Your task to perform on an android device: Open display settings Image 0: 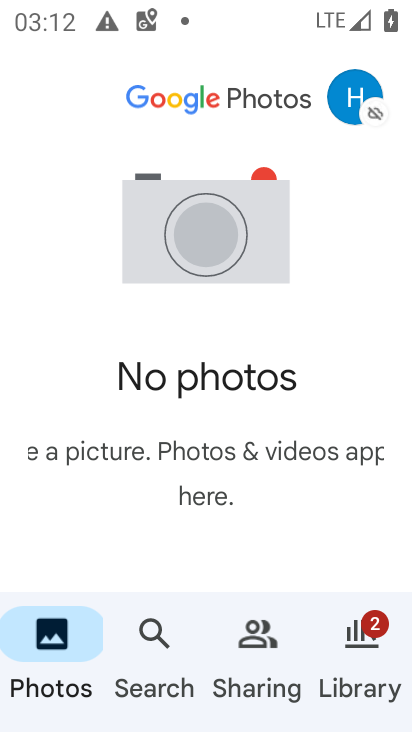
Step 0: press home button
Your task to perform on an android device: Open display settings Image 1: 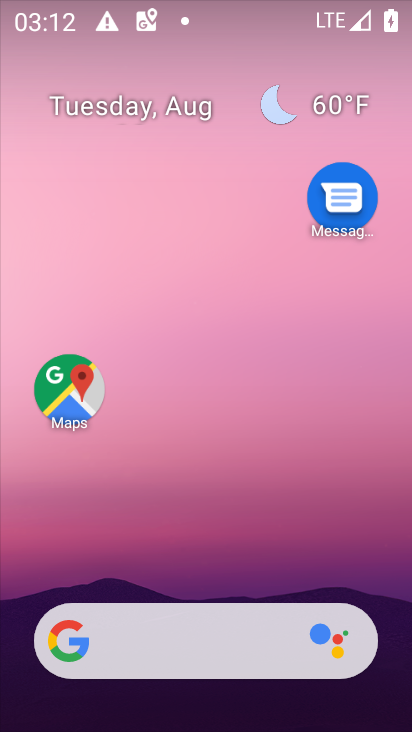
Step 1: drag from (221, 576) to (309, 88)
Your task to perform on an android device: Open display settings Image 2: 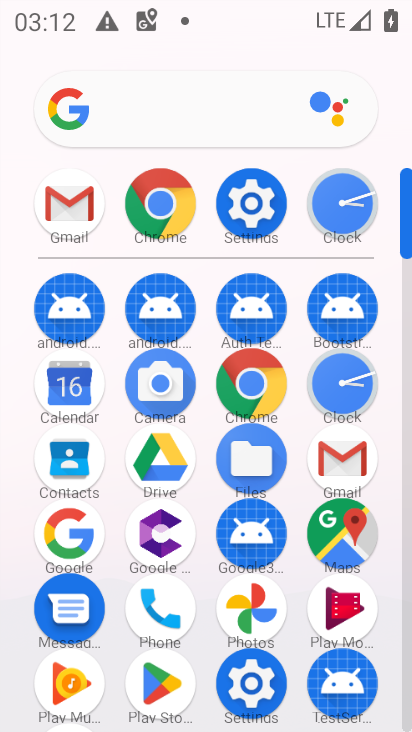
Step 2: click (236, 189)
Your task to perform on an android device: Open display settings Image 3: 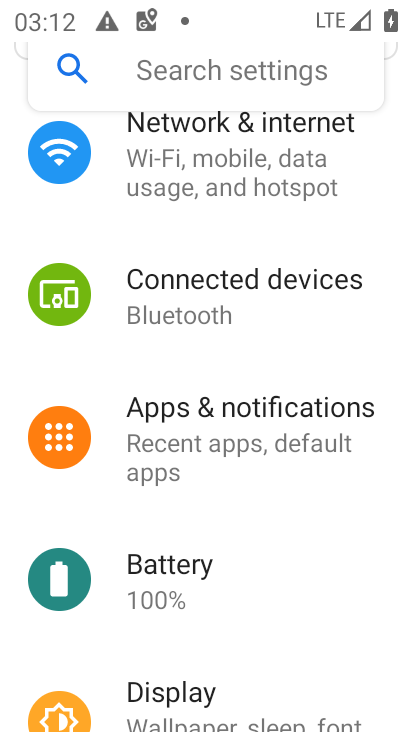
Step 3: click (190, 720)
Your task to perform on an android device: Open display settings Image 4: 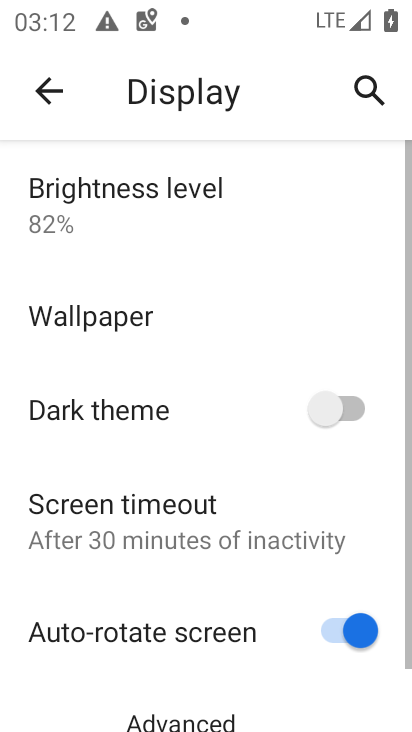
Step 4: task complete